Your task to perform on an android device: Open notification settings Image 0: 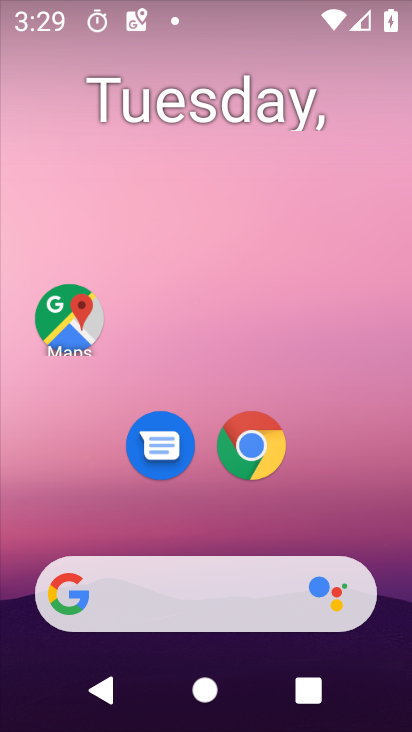
Step 0: drag from (190, 584) to (111, 2)
Your task to perform on an android device: Open notification settings Image 1: 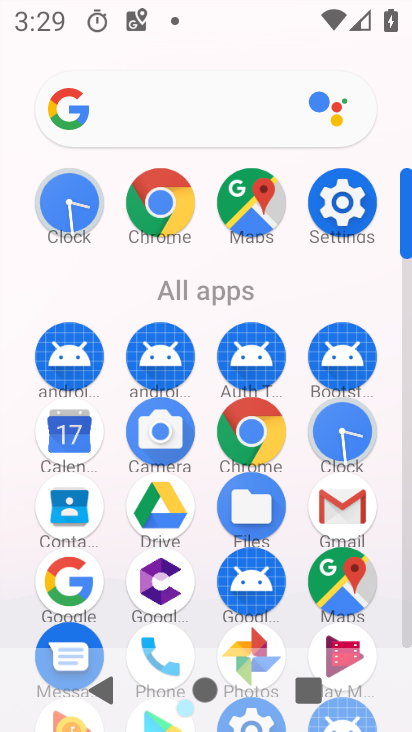
Step 1: click (328, 194)
Your task to perform on an android device: Open notification settings Image 2: 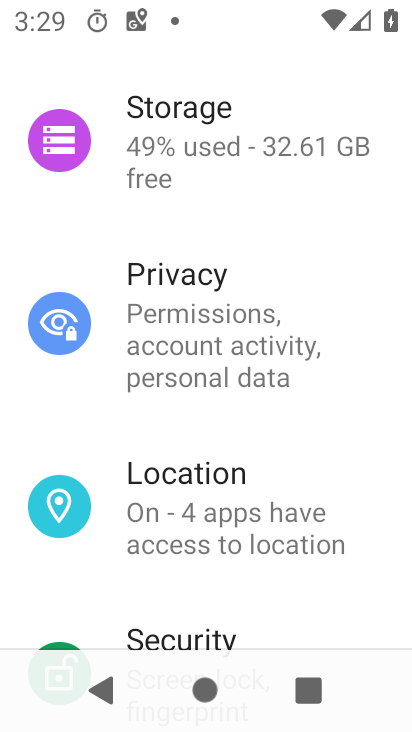
Step 2: drag from (243, 243) to (175, 652)
Your task to perform on an android device: Open notification settings Image 3: 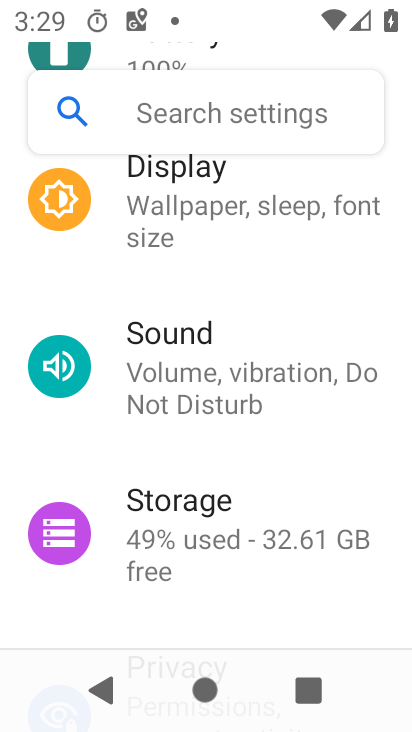
Step 3: drag from (204, 224) to (200, 652)
Your task to perform on an android device: Open notification settings Image 4: 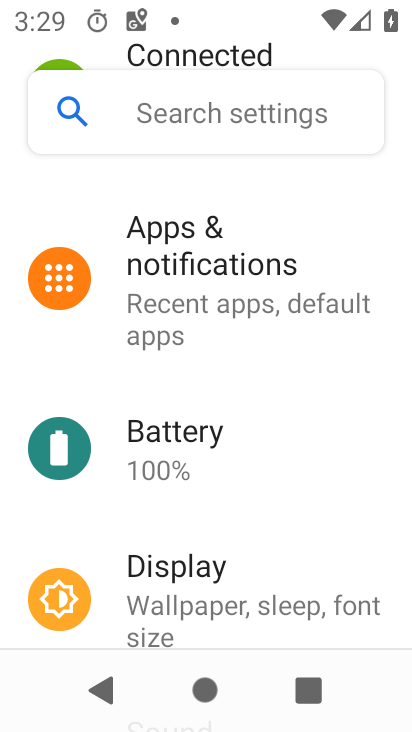
Step 4: click (221, 293)
Your task to perform on an android device: Open notification settings Image 5: 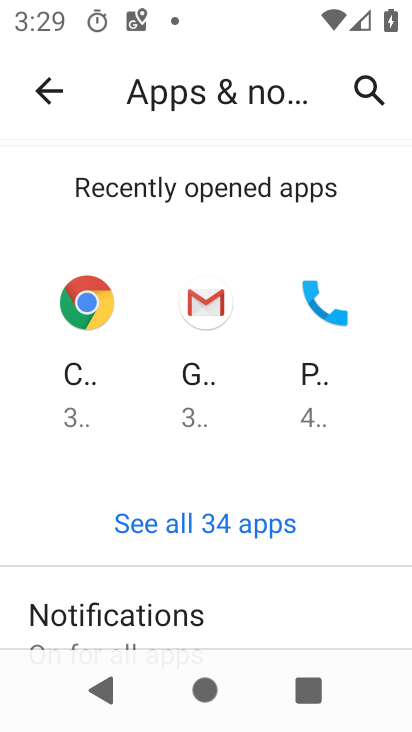
Step 5: drag from (274, 509) to (228, 248)
Your task to perform on an android device: Open notification settings Image 6: 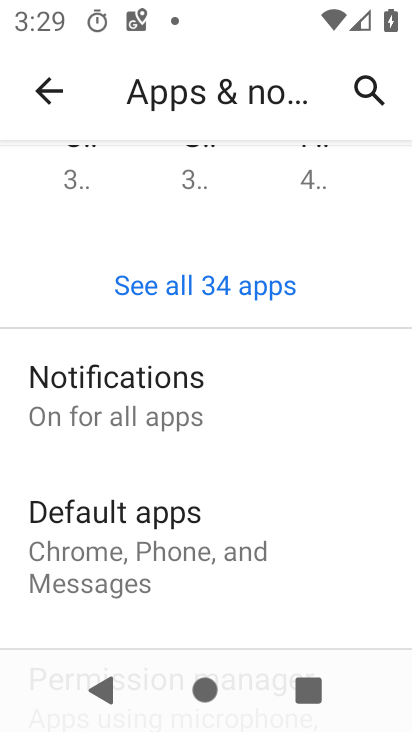
Step 6: click (196, 407)
Your task to perform on an android device: Open notification settings Image 7: 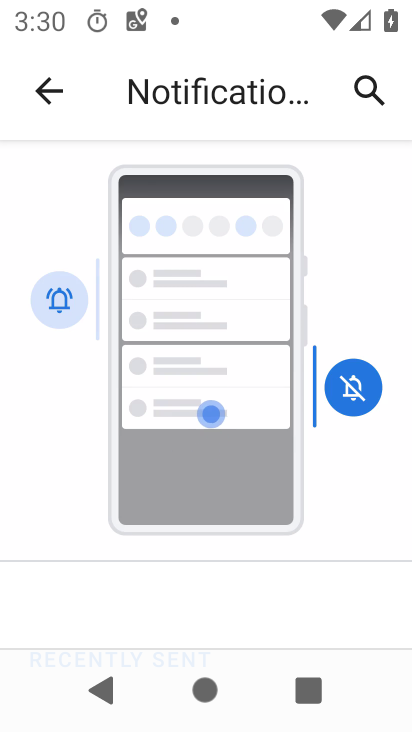
Step 7: task complete